Your task to perform on an android device: Go to wifi settings Image 0: 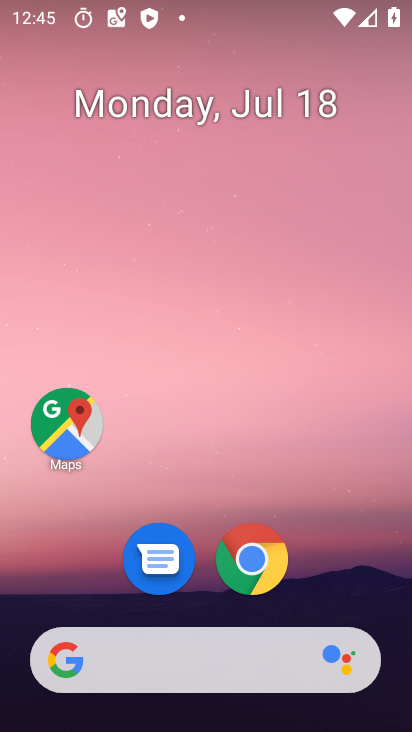
Step 0: drag from (70, 12) to (158, 622)
Your task to perform on an android device: Go to wifi settings Image 1: 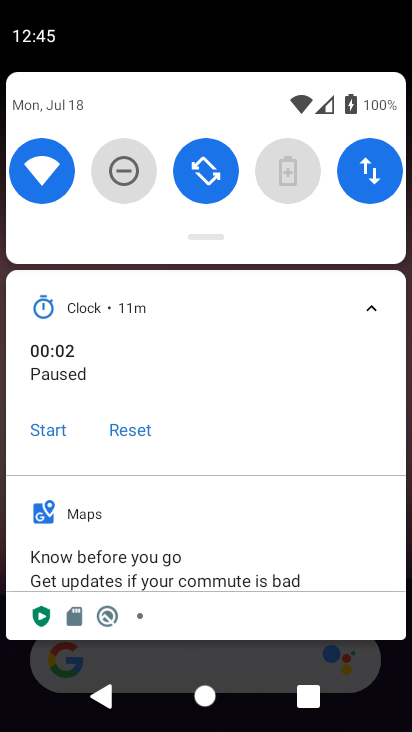
Step 1: click (31, 155)
Your task to perform on an android device: Go to wifi settings Image 2: 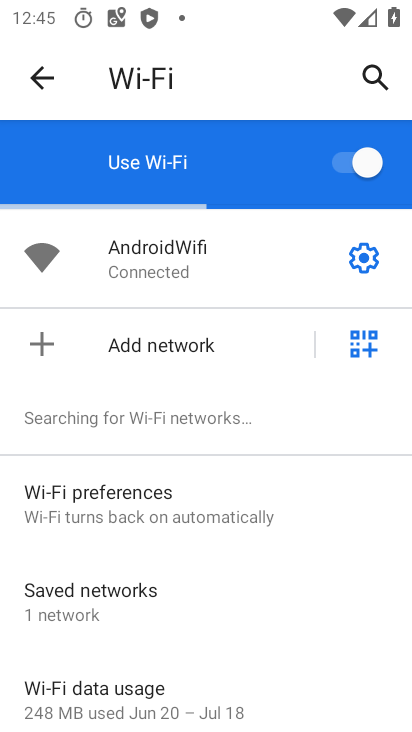
Step 2: task complete